Your task to perform on an android device: Go to ESPN.com Image 0: 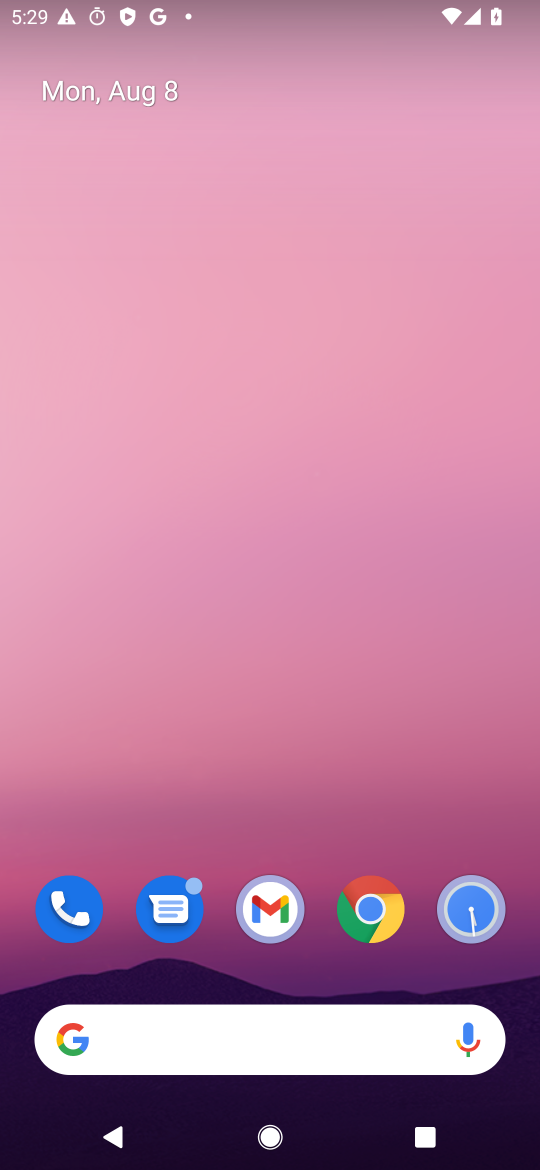
Step 0: click (376, 900)
Your task to perform on an android device: Go to ESPN.com Image 1: 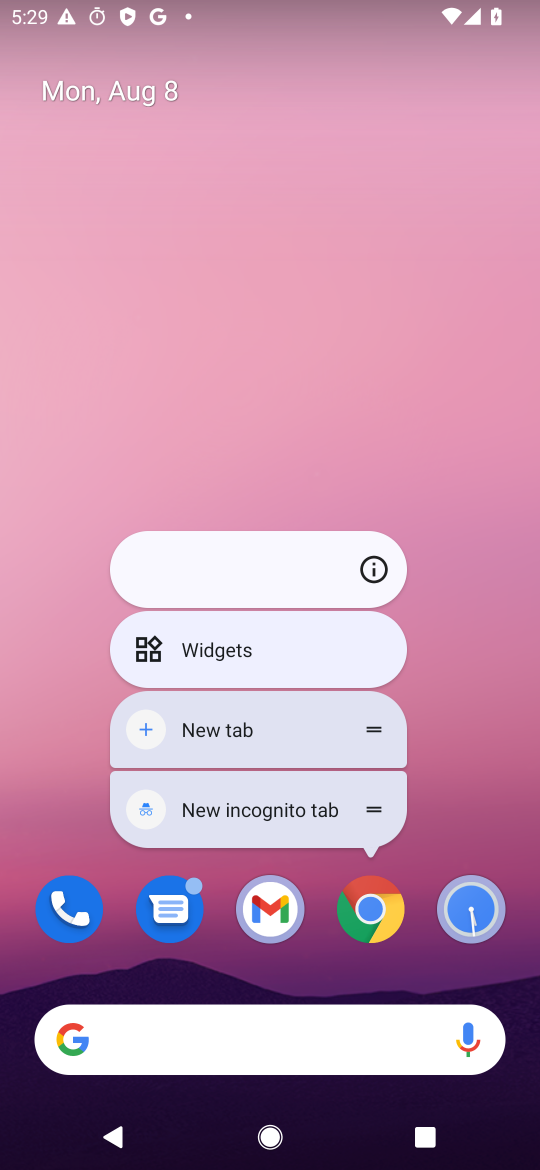
Step 1: click (369, 916)
Your task to perform on an android device: Go to ESPN.com Image 2: 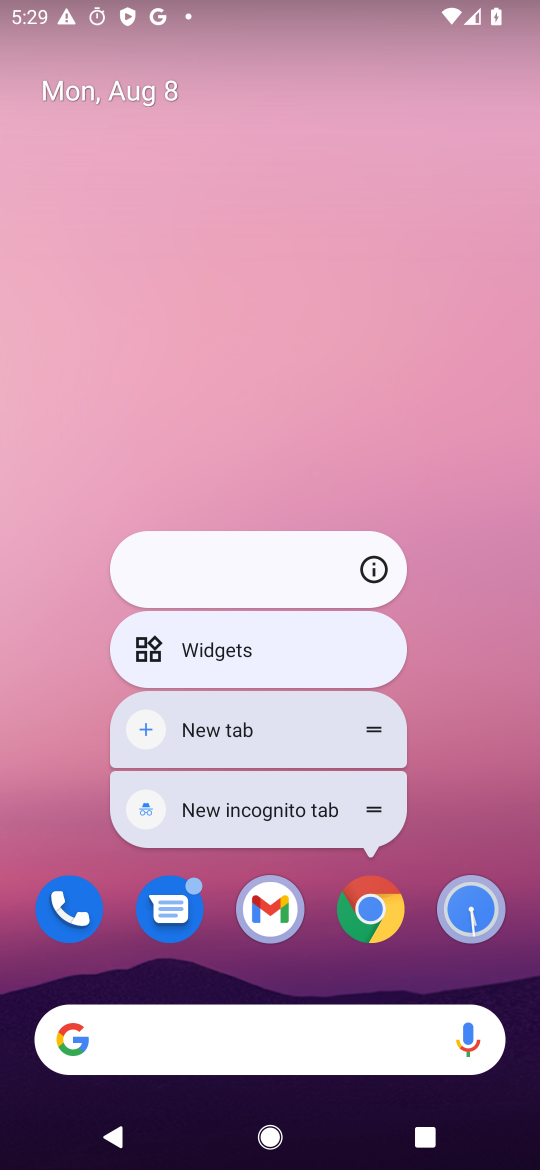
Step 2: click (369, 916)
Your task to perform on an android device: Go to ESPN.com Image 3: 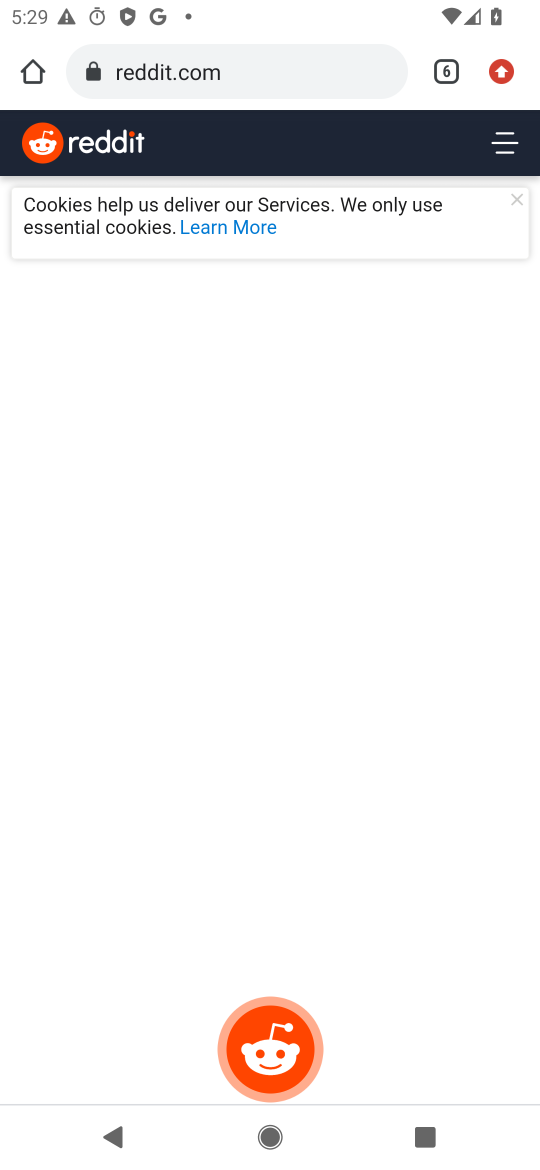
Step 3: drag from (502, 80) to (284, 227)
Your task to perform on an android device: Go to ESPN.com Image 4: 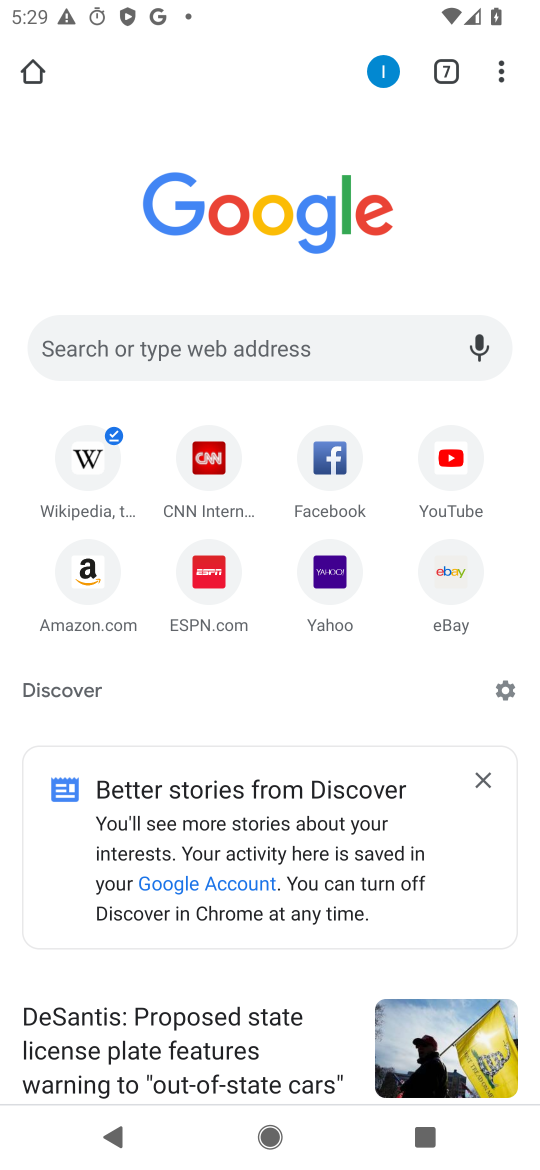
Step 4: click (210, 579)
Your task to perform on an android device: Go to ESPN.com Image 5: 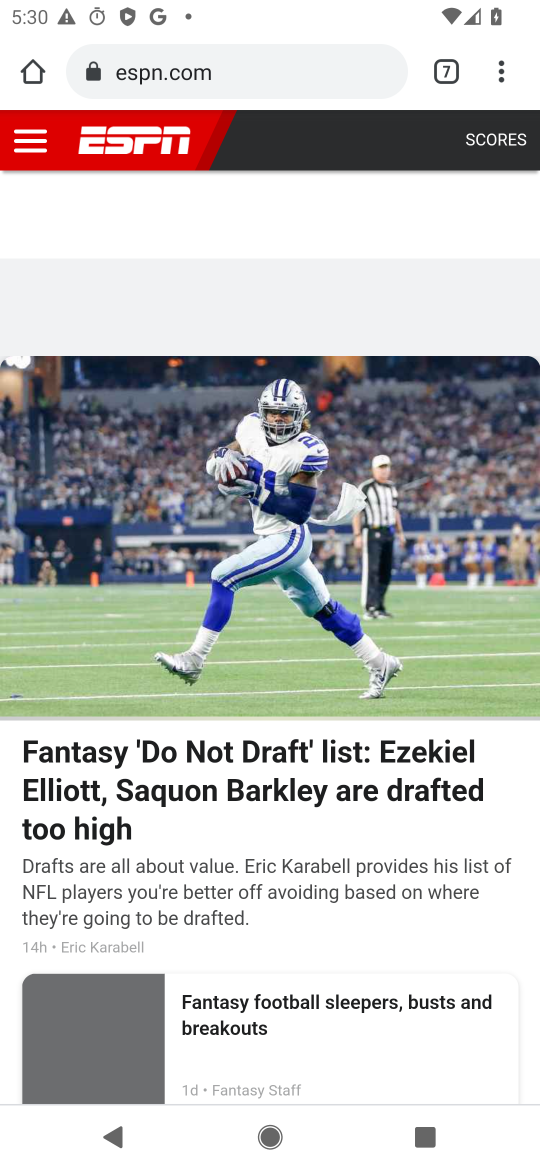
Step 5: task complete